Your task to perform on an android device: Go to eBay Image 0: 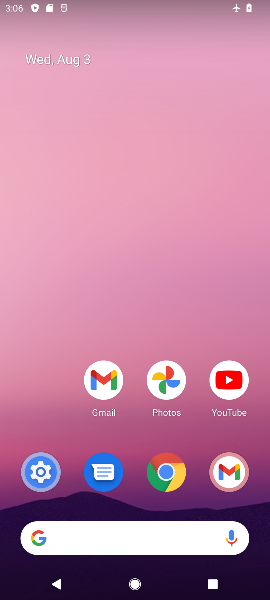
Step 0: drag from (139, 492) to (7, 48)
Your task to perform on an android device: Go to eBay Image 1: 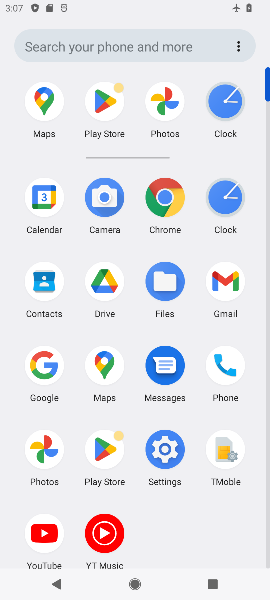
Step 1: click (49, 365)
Your task to perform on an android device: Go to eBay Image 2: 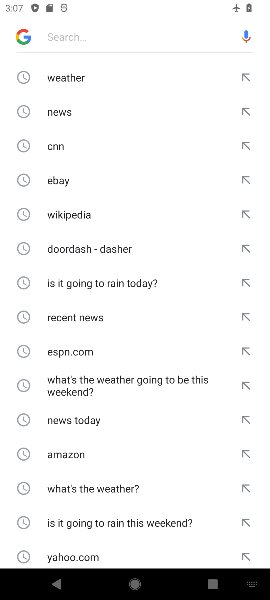
Step 2: click (73, 185)
Your task to perform on an android device: Go to eBay Image 3: 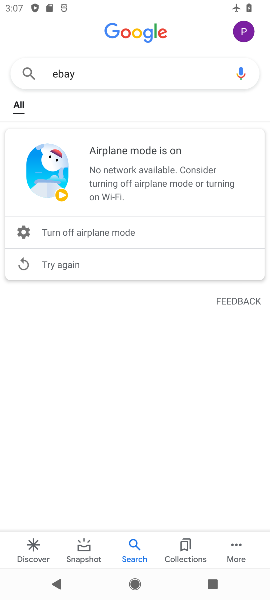
Step 3: task complete